Your task to perform on an android device: turn on javascript in the chrome app Image 0: 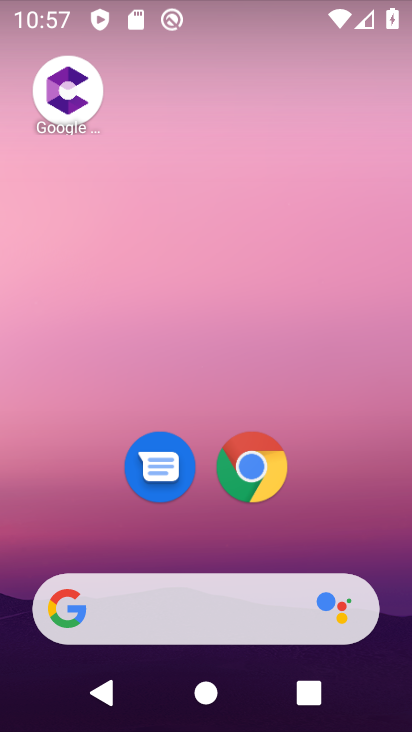
Step 0: press home button
Your task to perform on an android device: turn on javascript in the chrome app Image 1: 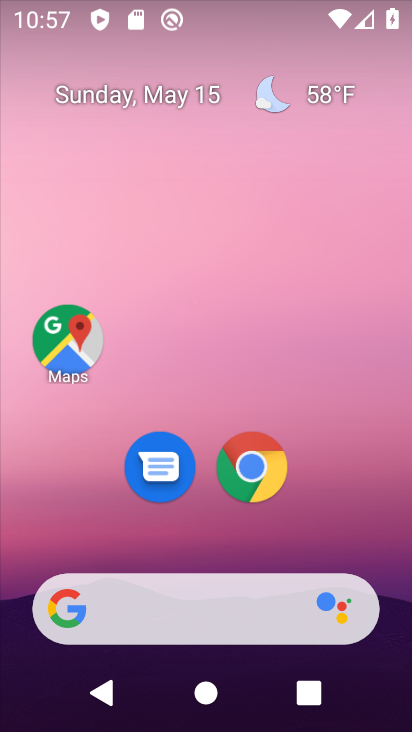
Step 1: click (250, 467)
Your task to perform on an android device: turn on javascript in the chrome app Image 2: 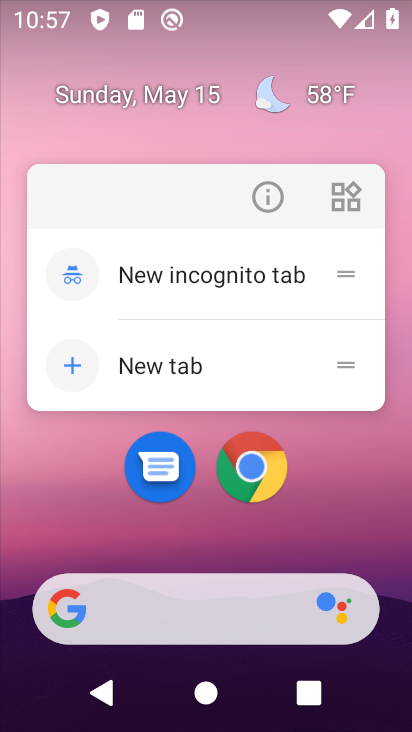
Step 2: click (254, 473)
Your task to perform on an android device: turn on javascript in the chrome app Image 3: 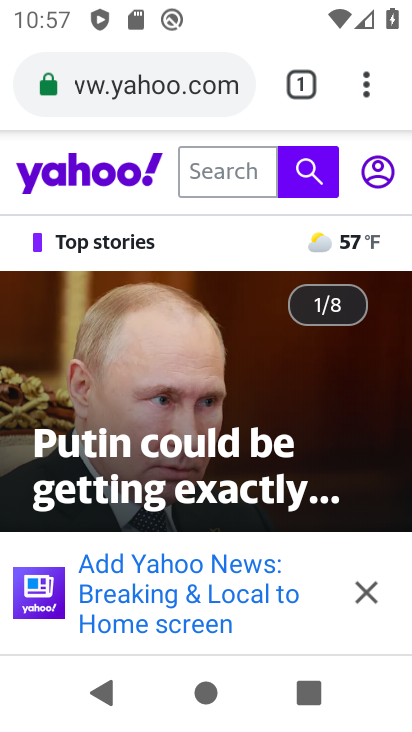
Step 3: click (367, 75)
Your task to perform on an android device: turn on javascript in the chrome app Image 4: 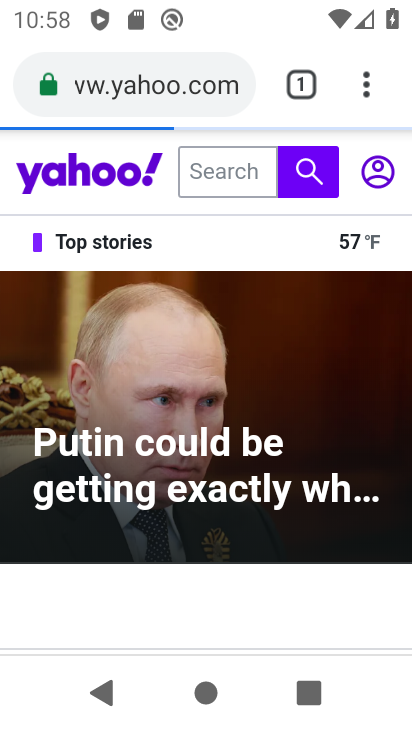
Step 4: click (367, 75)
Your task to perform on an android device: turn on javascript in the chrome app Image 5: 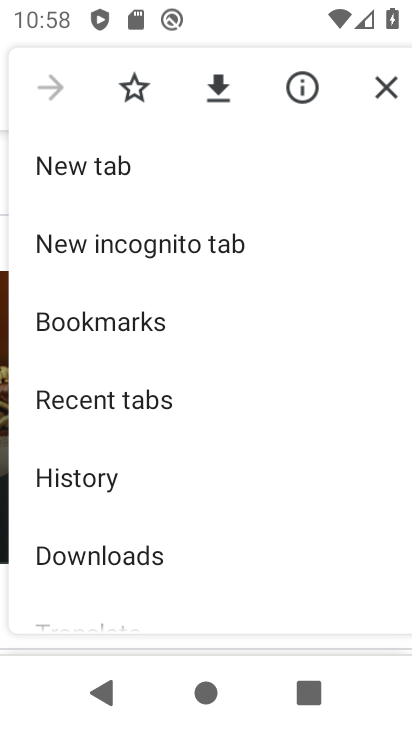
Step 5: drag from (180, 572) to (263, 166)
Your task to perform on an android device: turn on javascript in the chrome app Image 6: 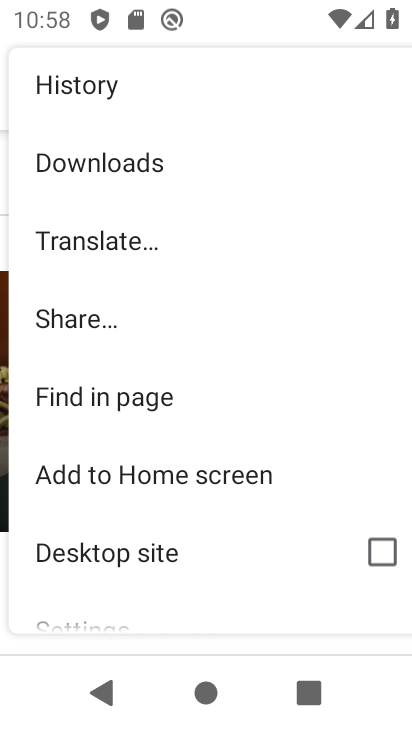
Step 6: drag from (167, 550) to (237, 84)
Your task to perform on an android device: turn on javascript in the chrome app Image 7: 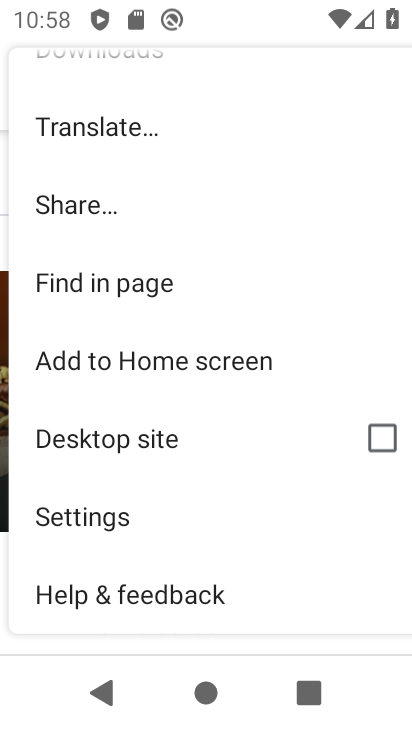
Step 7: click (139, 502)
Your task to perform on an android device: turn on javascript in the chrome app Image 8: 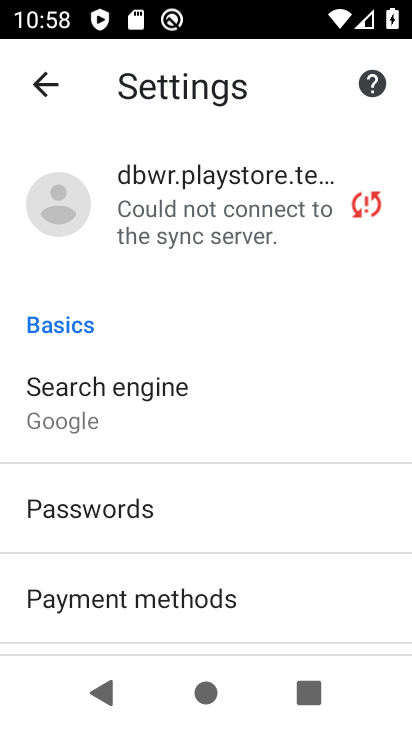
Step 8: drag from (204, 608) to (240, 199)
Your task to perform on an android device: turn on javascript in the chrome app Image 9: 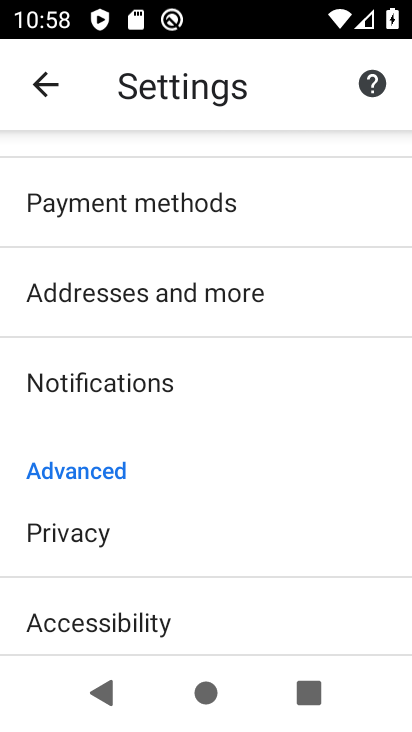
Step 9: drag from (168, 591) to (227, 101)
Your task to perform on an android device: turn on javascript in the chrome app Image 10: 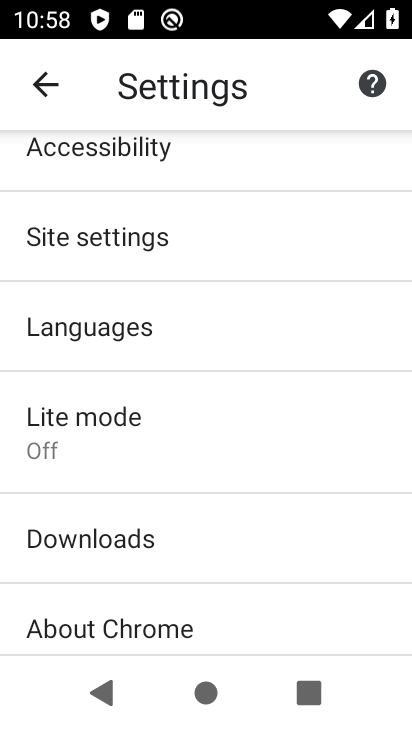
Step 10: drag from (200, 584) to (198, 357)
Your task to perform on an android device: turn on javascript in the chrome app Image 11: 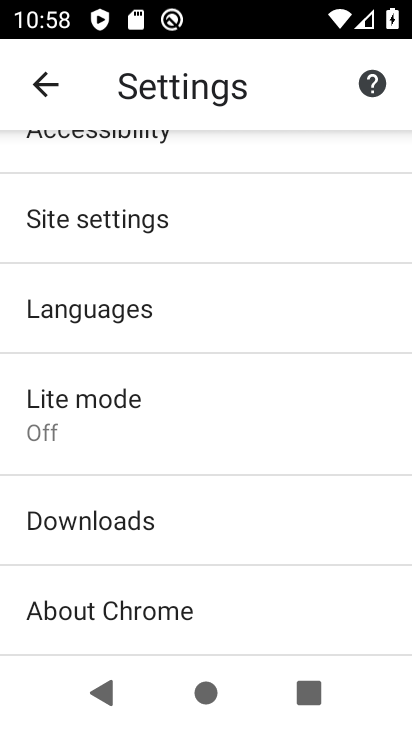
Step 11: click (196, 230)
Your task to perform on an android device: turn on javascript in the chrome app Image 12: 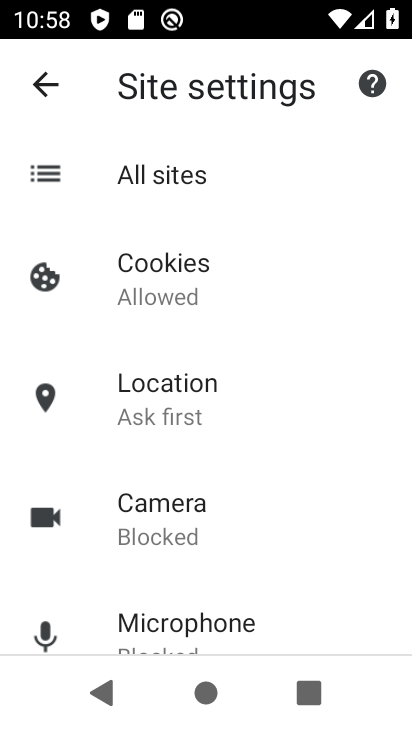
Step 12: drag from (214, 577) to (239, 182)
Your task to perform on an android device: turn on javascript in the chrome app Image 13: 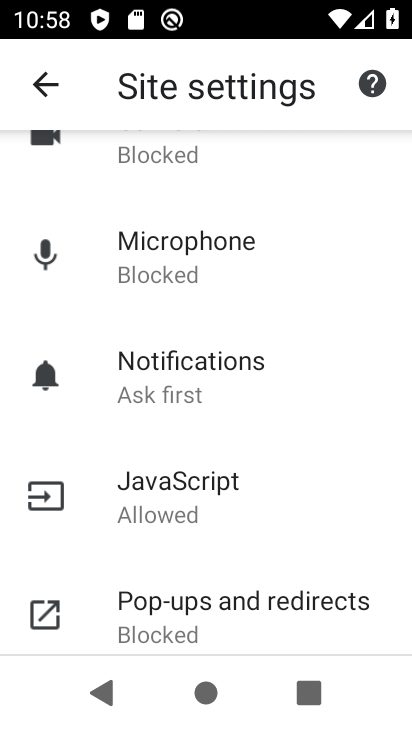
Step 13: click (227, 494)
Your task to perform on an android device: turn on javascript in the chrome app Image 14: 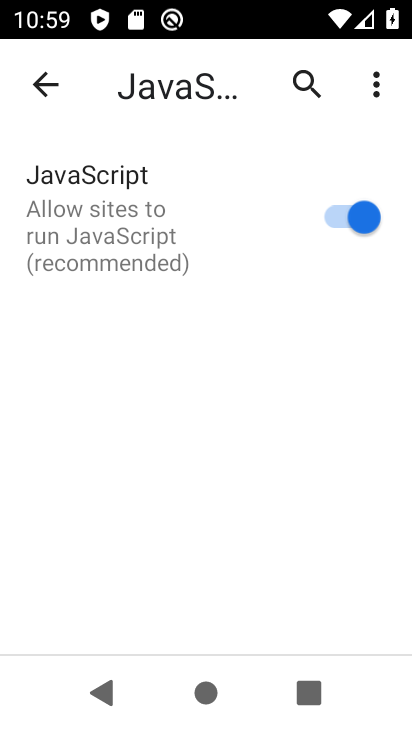
Step 14: task complete